Your task to perform on an android device: Open Maps and search for coffee Image 0: 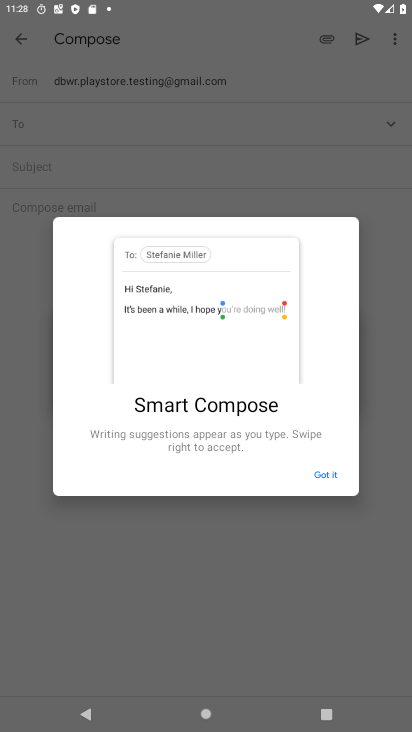
Step 0: press home button
Your task to perform on an android device: Open Maps and search for coffee Image 1: 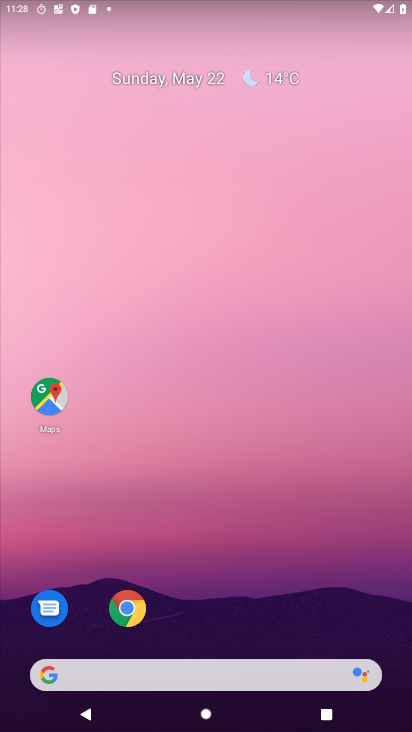
Step 1: drag from (222, 727) to (175, 90)
Your task to perform on an android device: Open Maps and search for coffee Image 2: 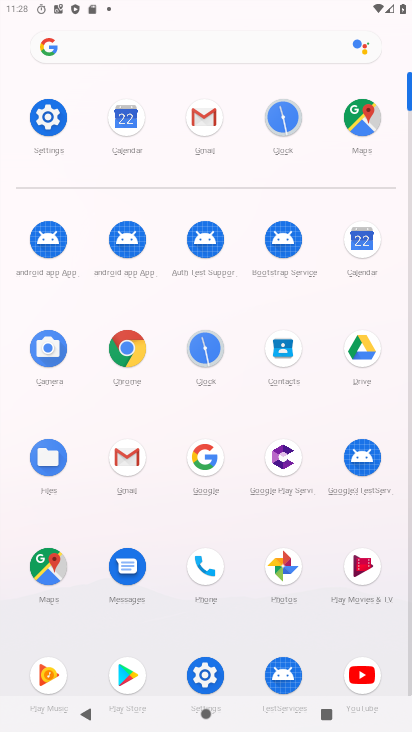
Step 2: click (376, 116)
Your task to perform on an android device: Open Maps and search for coffee Image 3: 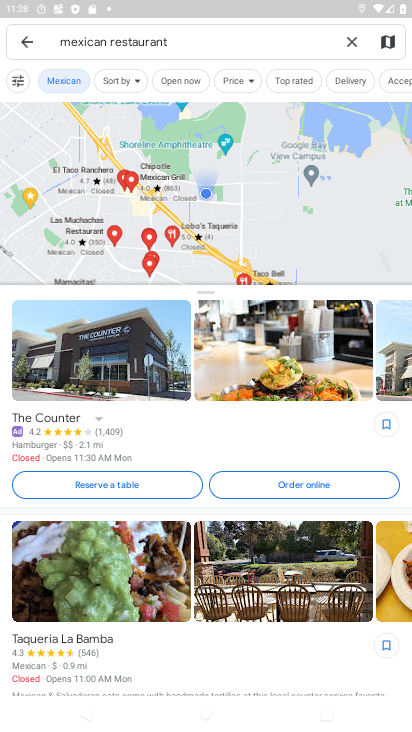
Step 3: click (274, 38)
Your task to perform on an android device: Open Maps and search for coffee Image 4: 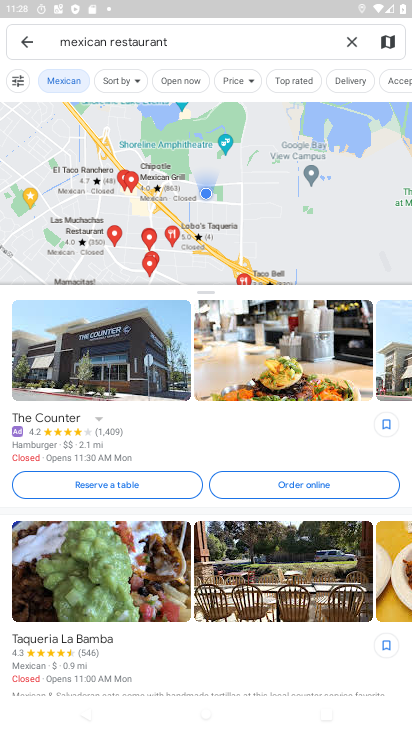
Step 4: click (274, 38)
Your task to perform on an android device: Open Maps and search for coffee Image 5: 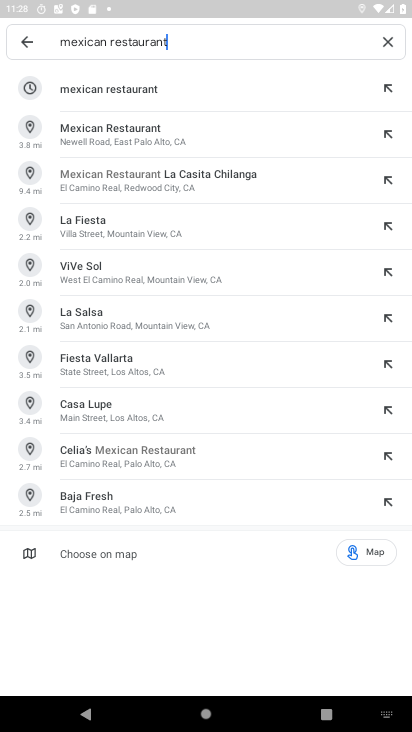
Step 5: click (382, 35)
Your task to perform on an android device: Open Maps and search for coffee Image 6: 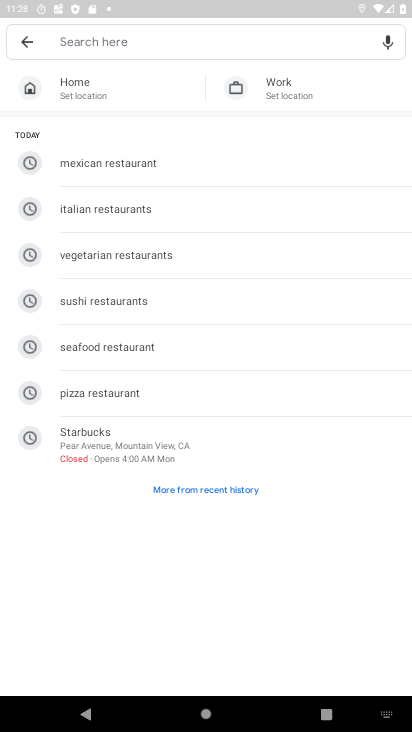
Step 6: type "coffee"
Your task to perform on an android device: Open Maps and search for coffee Image 7: 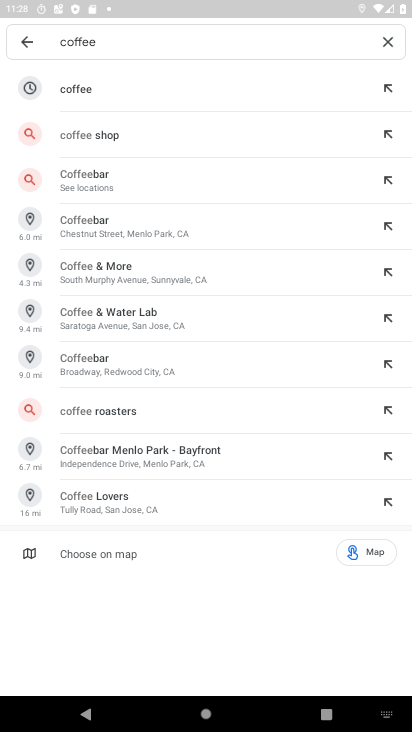
Step 7: click (75, 87)
Your task to perform on an android device: Open Maps and search for coffee Image 8: 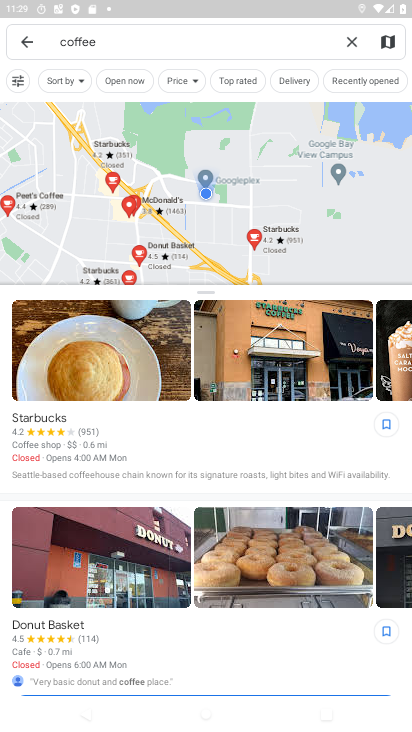
Step 8: task complete